Your task to perform on an android device: Open battery settings Image 0: 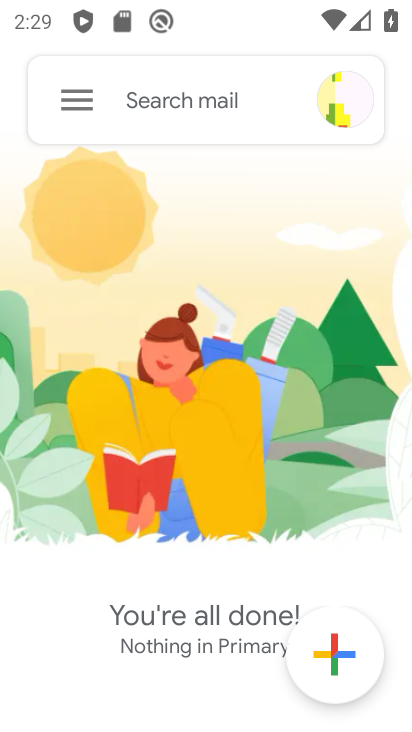
Step 0: press home button
Your task to perform on an android device: Open battery settings Image 1: 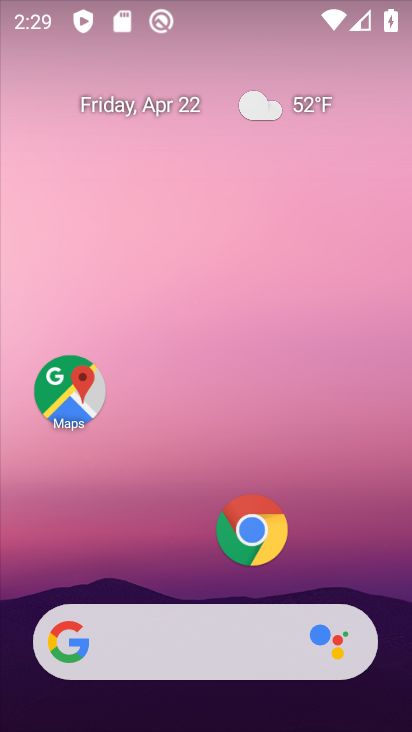
Step 1: drag from (200, 608) to (259, 299)
Your task to perform on an android device: Open battery settings Image 2: 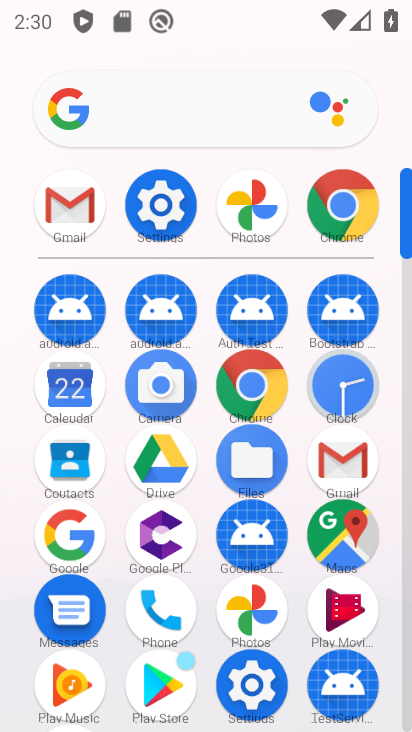
Step 2: click (262, 673)
Your task to perform on an android device: Open battery settings Image 3: 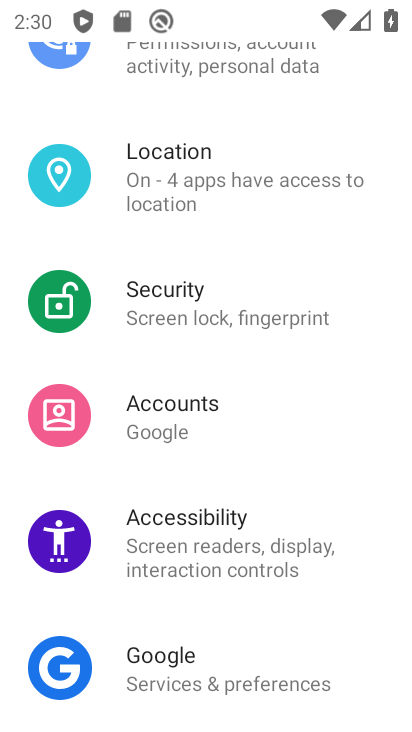
Step 3: drag from (187, 621) to (244, 222)
Your task to perform on an android device: Open battery settings Image 4: 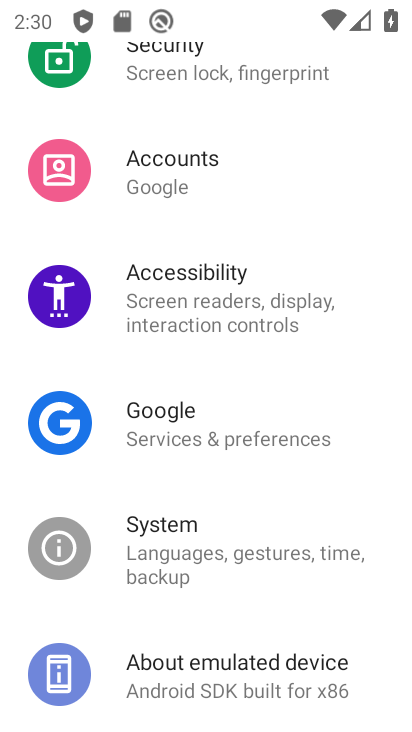
Step 4: drag from (198, 183) to (226, 677)
Your task to perform on an android device: Open battery settings Image 5: 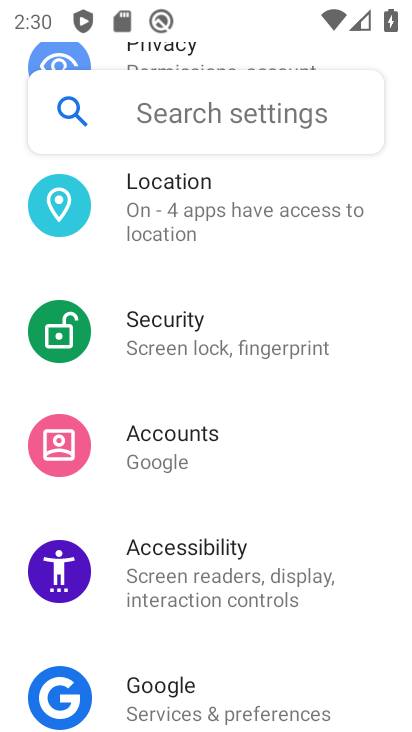
Step 5: drag from (196, 293) to (199, 479)
Your task to perform on an android device: Open battery settings Image 6: 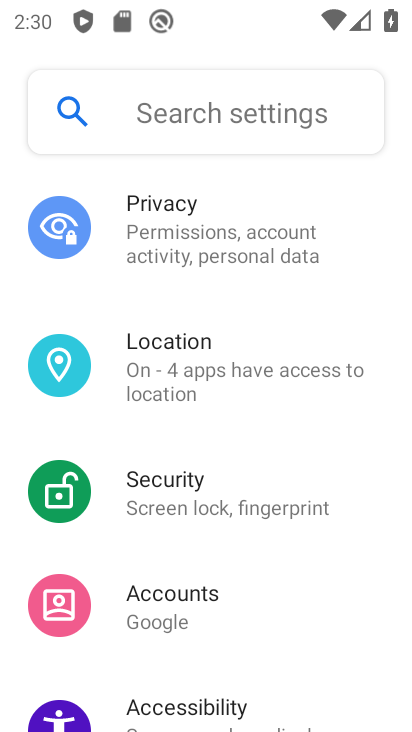
Step 6: drag from (198, 230) to (230, 660)
Your task to perform on an android device: Open battery settings Image 7: 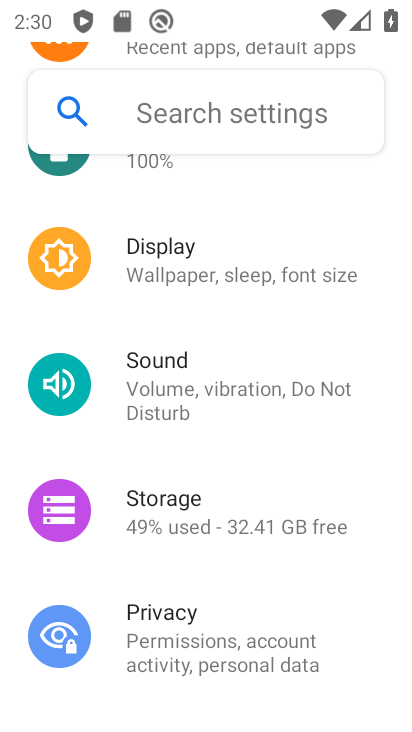
Step 7: drag from (153, 248) to (237, 568)
Your task to perform on an android device: Open battery settings Image 8: 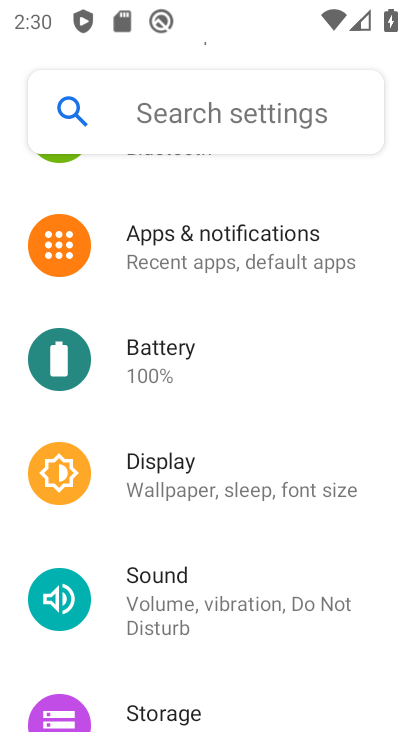
Step 8: click (175, 369)
Your task to perform on an android device: Open battery settings Image 9: 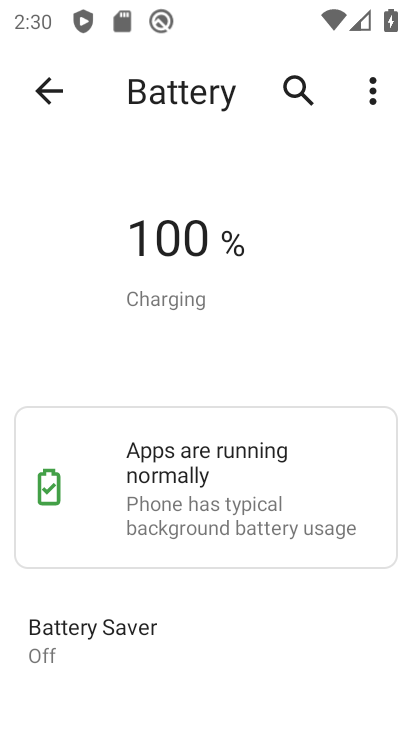
Step 9: task complete